Your task to perform on an android device: set an alarm Image 0: 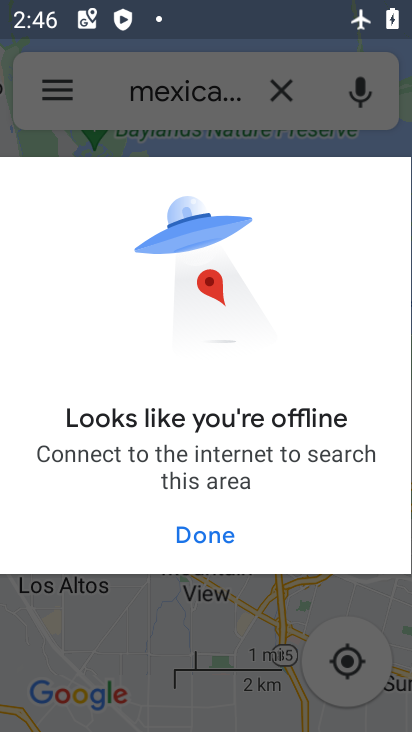
Step 0: press home button
Your task to perform on an android device: set an alarm Image 1: 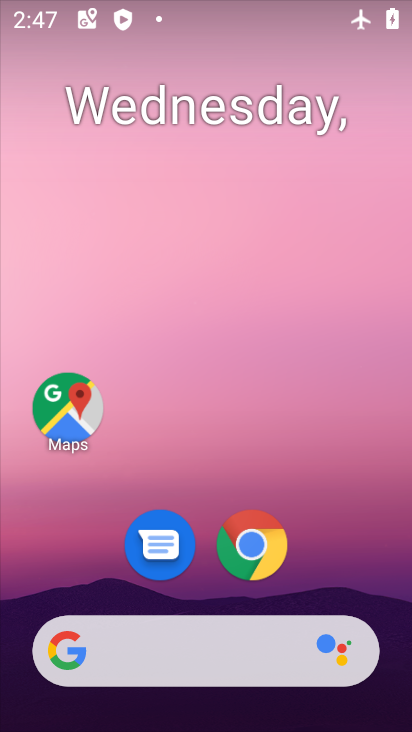
Step 1: drag from (328, 520) to (350, 213)
Your task to perform on an android device: set an alarm Image 2: 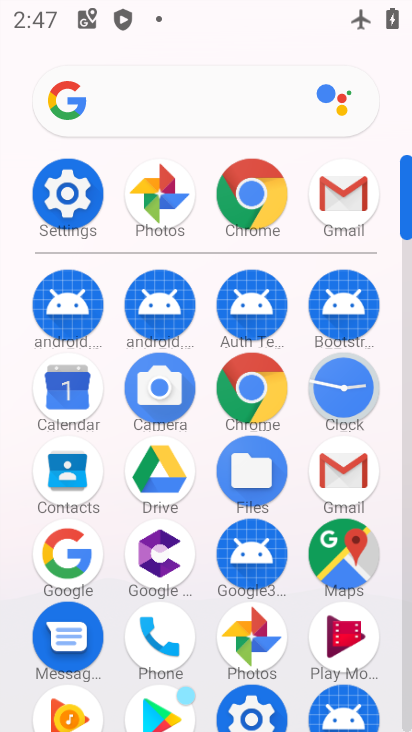
Step 2: click (338, 394)
Your task to perform on an android device: set an alarm Image 3: 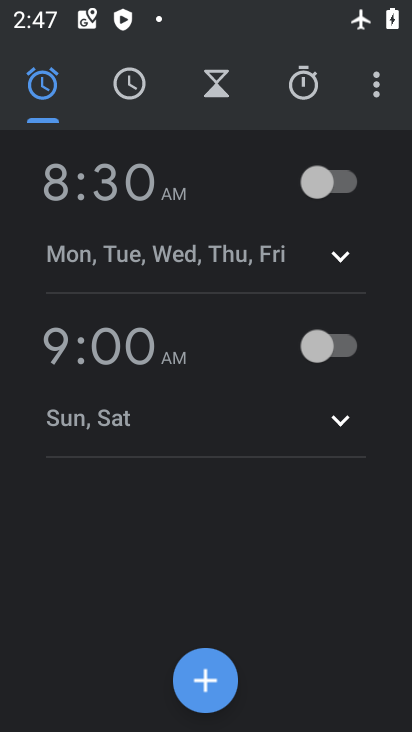
Step 3: click (198, 662)
Your task to perform on an android device: set an alarm Image 4: 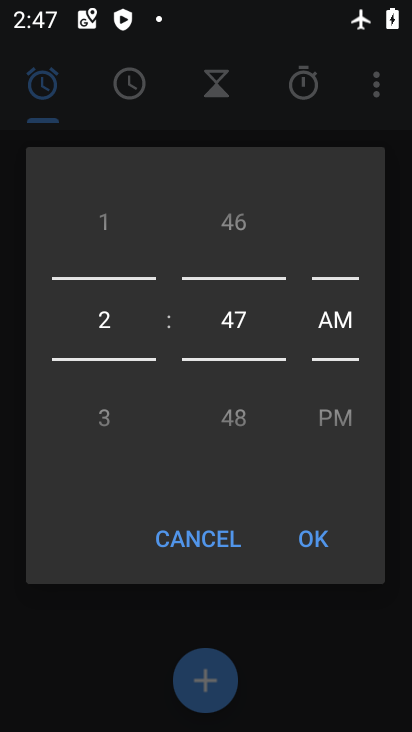
Step 4: click (317, 553)
Your task to perform on an android device: set an alarm Image 5: 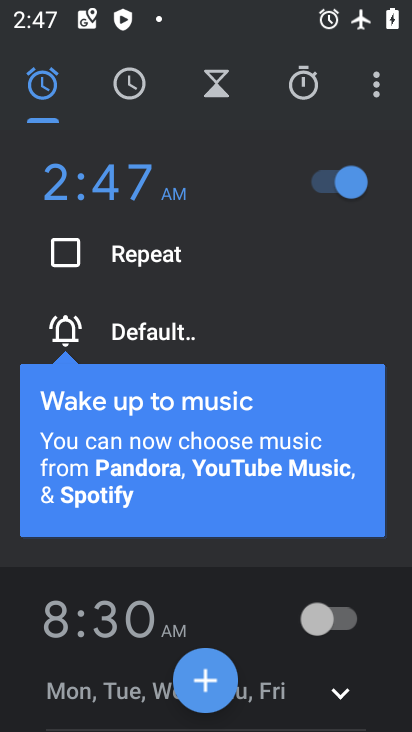
Step 5: task complete